Your task to perform on an android device: open a new tab in the chrome app Image 0: 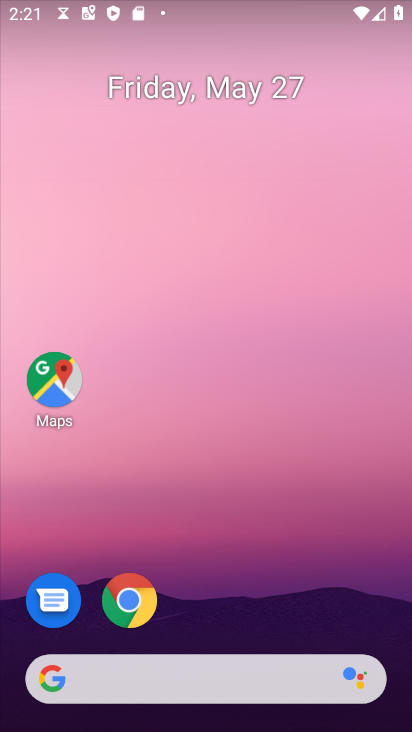
Step 0: drag from (256, 588) to (177, 46)
Your task to perform on an android device: open a new tab in the chrome app Image 1: 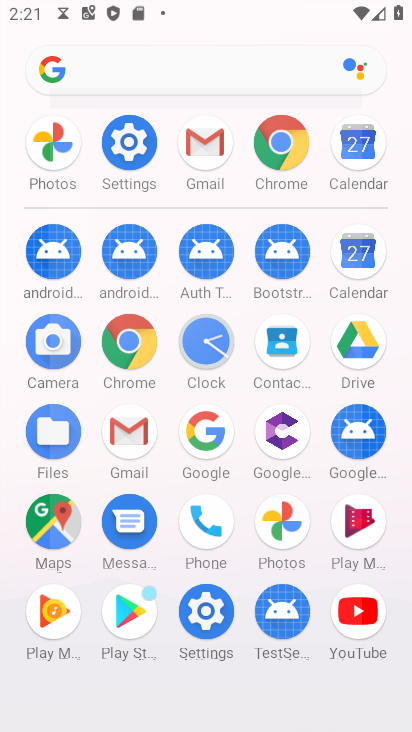
Step 1: drag from (14, 538) to (25, 208)
Your task to perform on an android device: open a new tab in the chrome app Image 2: 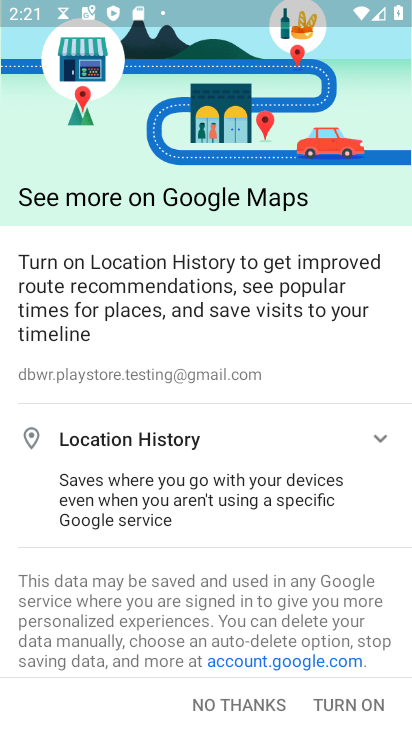
Step 2: press back button
Your task to perform on an android device: open a new tab in the chrome app Image 3: 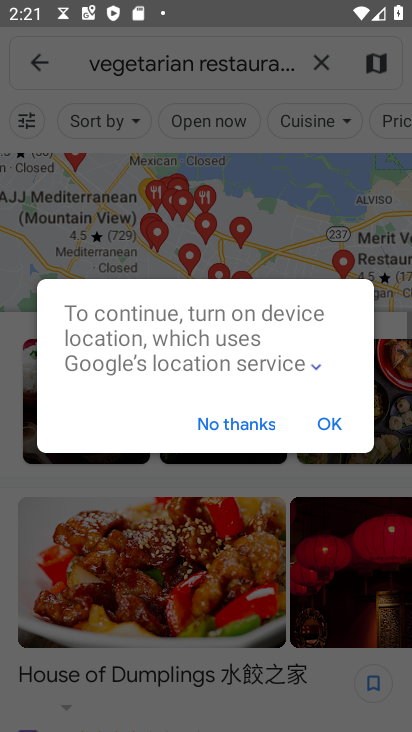
Step 3: click (242, 417)
Your task to perform on an android device: open a new tab in the chrome app Image 4: 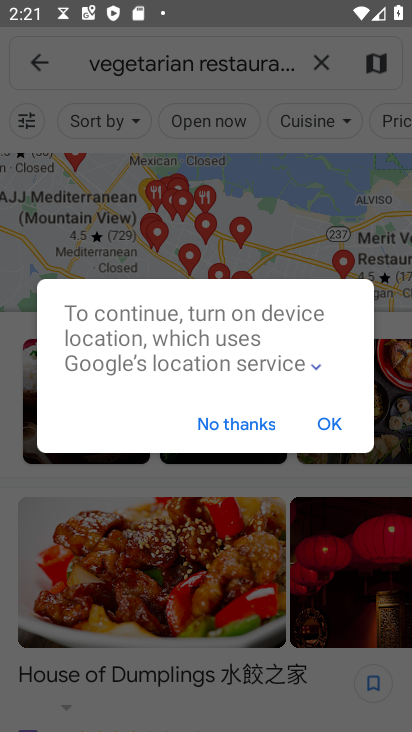
Step 4: click (226, 421)
Your task to perform on an android device: open a new tab in the chrome app Image 5: 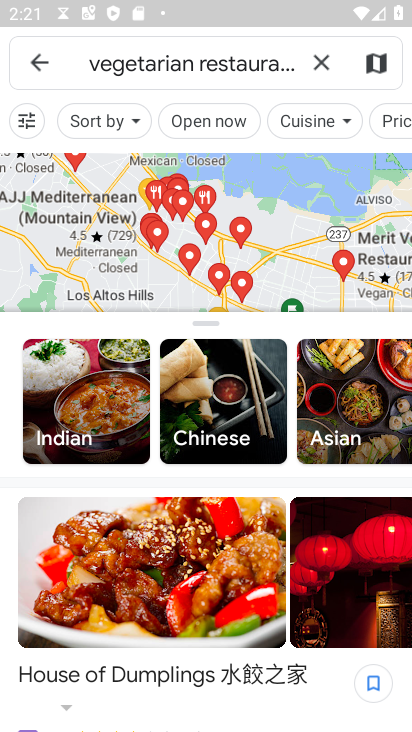
Step 5: press back button
Your task to perform on an android device: open a new tab in the chrome app Image 6: 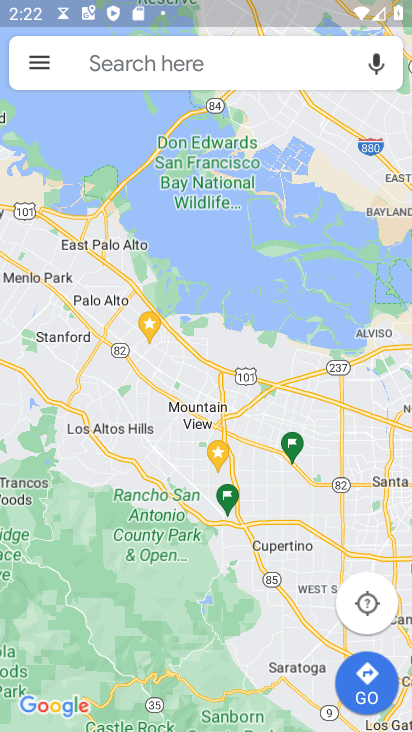
Step 6: press back button
Your task to perform on an android device: open a new tab in the chrome app Image 7: 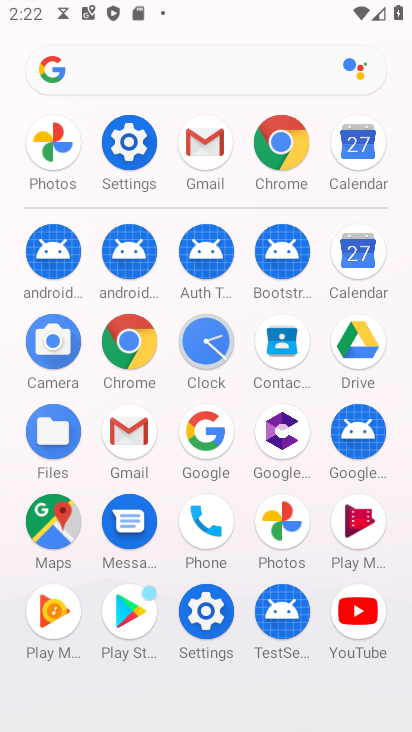
Step 7: click (280, 138)
Your task to perform on an android device: open a new tab in the chrome app Image 8: 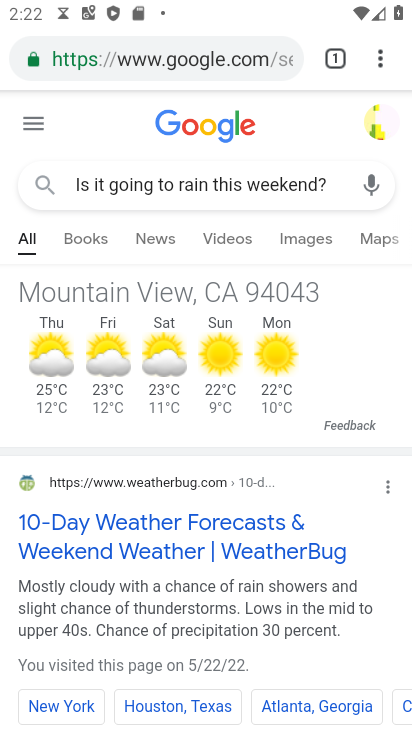
Step 8: task complete